Your task to perform on an android device: Go to Maps Image 0: 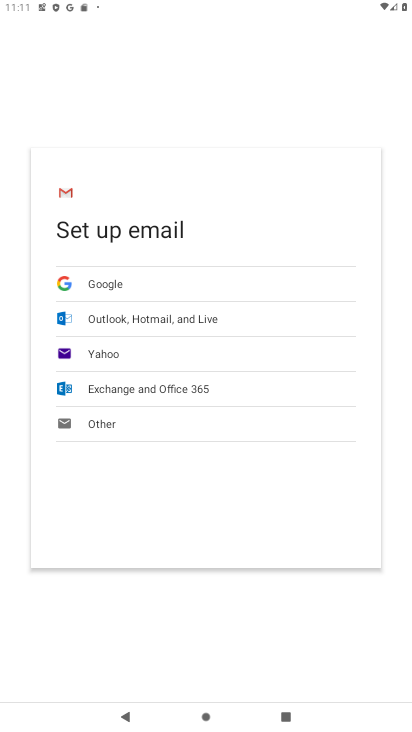
Step 0: press home button
Your task to perform on an android device: Go to Maps Image 1: 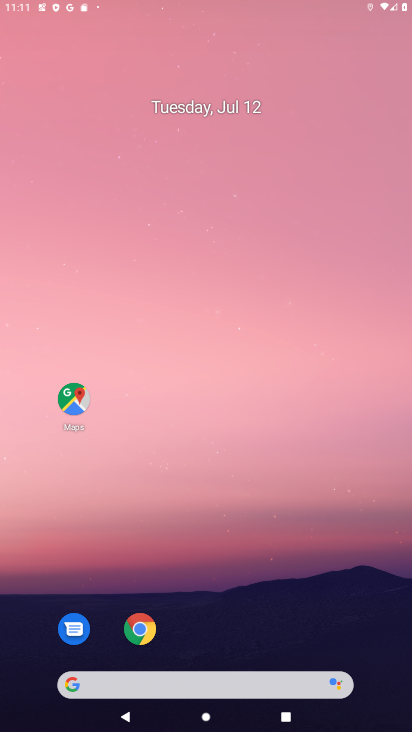
Step 1: drag from (179, 665) to (180, 199)
Your task to perform on an android device: Go to Maps Image 2: 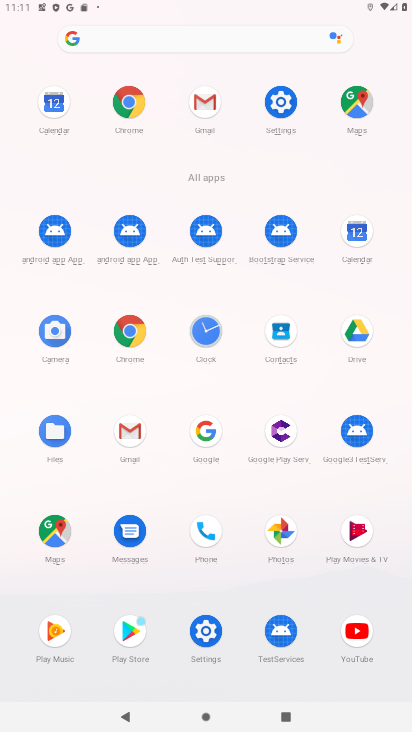
Step 2: click (56, 515)
Your task to perform on an android device: Go to Maps Image 3: 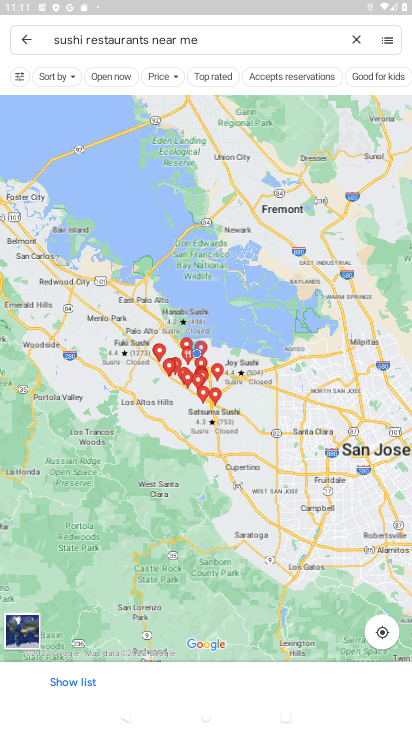
Step 3: click (359, 36)
Your task to perform on an android device: Go to Maps Image 4: 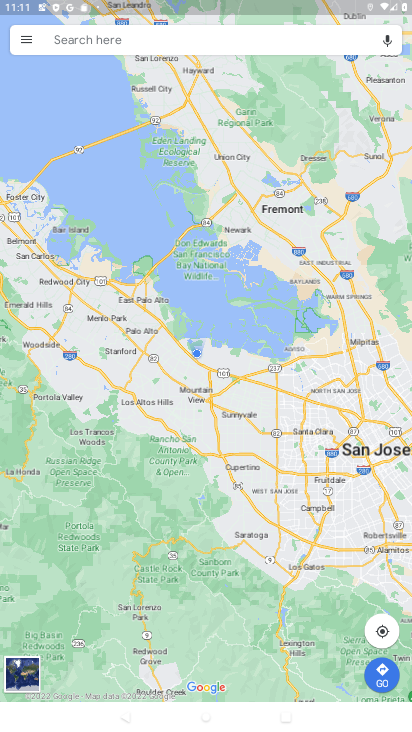
Step 4: task complete